Your task to perform on an android device: Go to display settings Image 0: 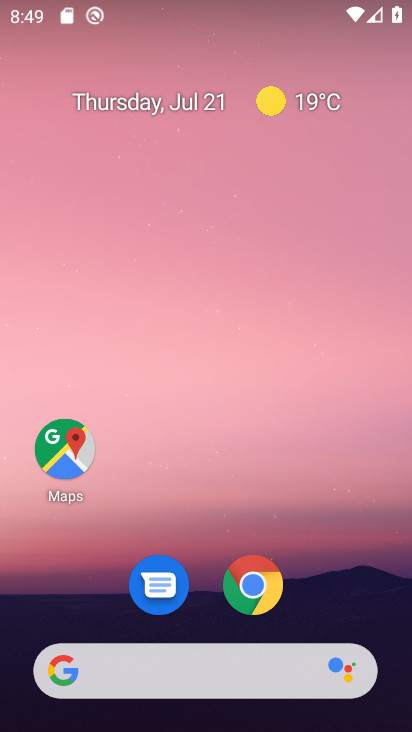
Step 0: drag from (308, 552) to (307, 26)
Your task to perform on an android device: Go to display settings Image 1: 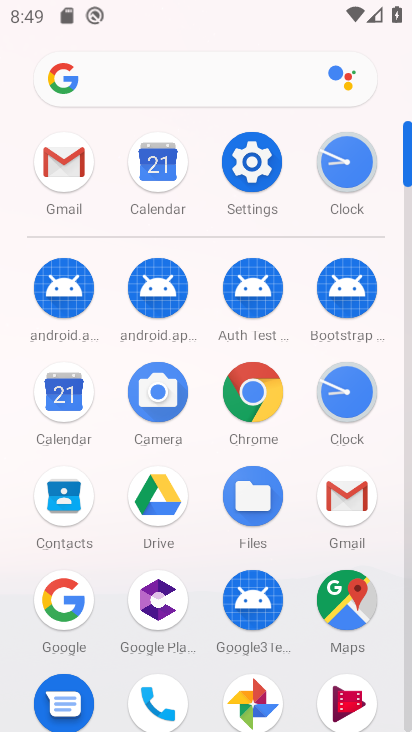
Step 1: click (259, 159)
Your task to perform on an android device: Go to display settings Image 2: 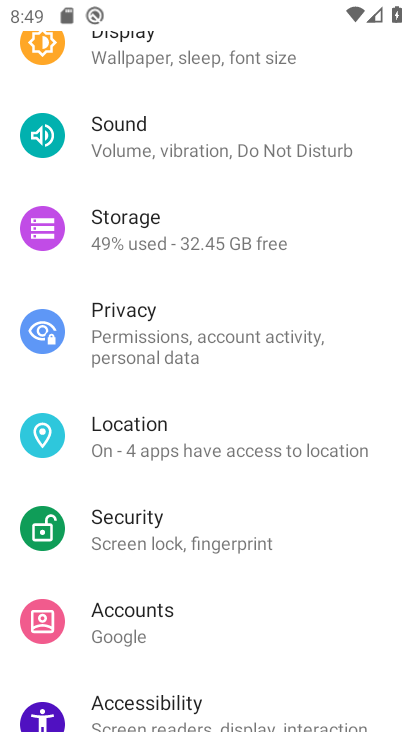
Step 2: drag from (240, 199) to (254, 465)
Your task to perform on an android device: Go to display settings Image 3: 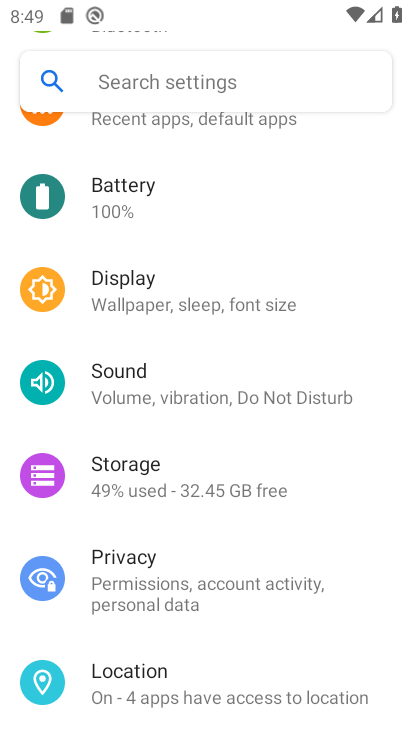
Step 3: click (203, 308)
Your task to perform on an android device: Go to display settings Image 4: 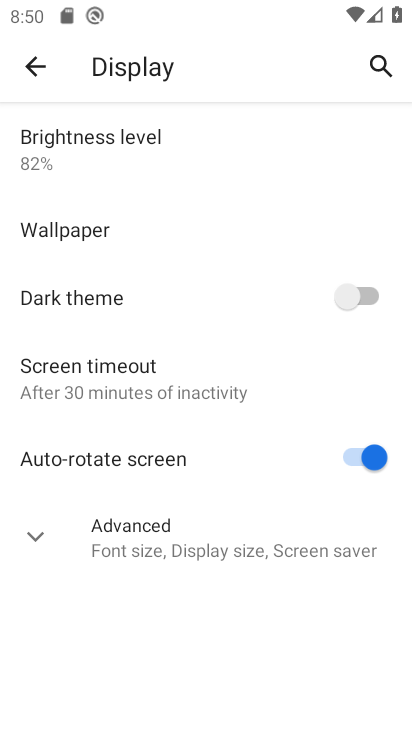
Step 4: task complete